Your task to perform on an android device: turn on wifi Image 0: 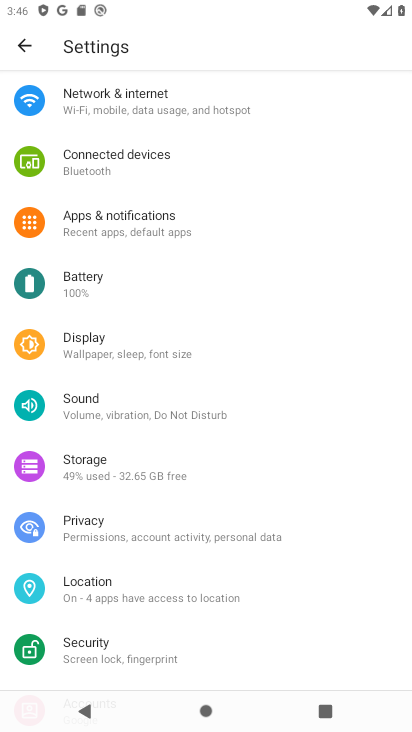
Step 0: click (195, 108)
Your task to perform on an android device: turn on wifi Image 1: 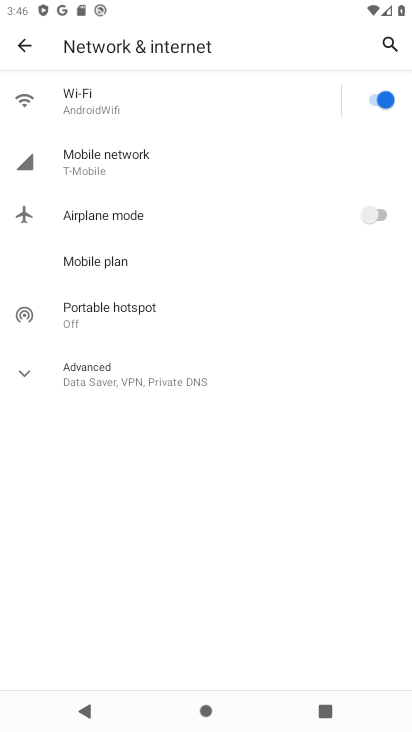
Step 1: task complete